Your task to perform on an android device: Go to Maps Image 0: 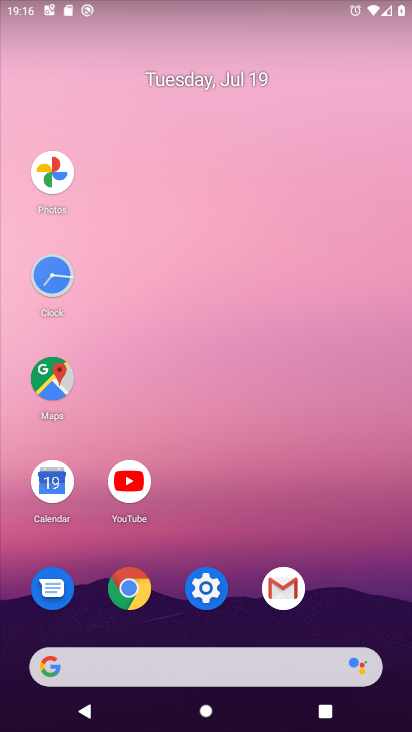
Step 0: click (41, 381)
Your task to perform on an android device: Go to Maps Image 1: 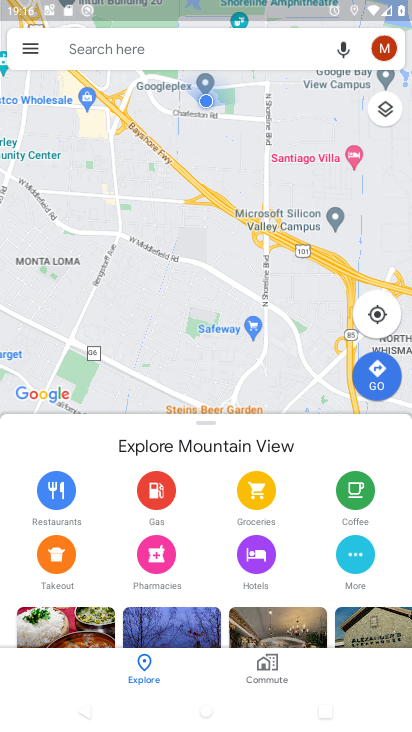
Step 1: task complete